Your task to perform on an android device: remove spam from my inbox in the gmail app Image 0: 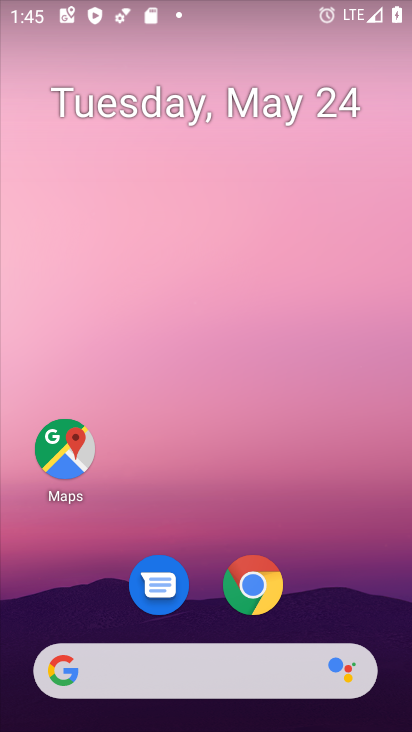
Step 0: drag from (249, 470) to (264, 0)
Your task to perform on an android device: remove spam from my inbox in the gmail app Image 1: 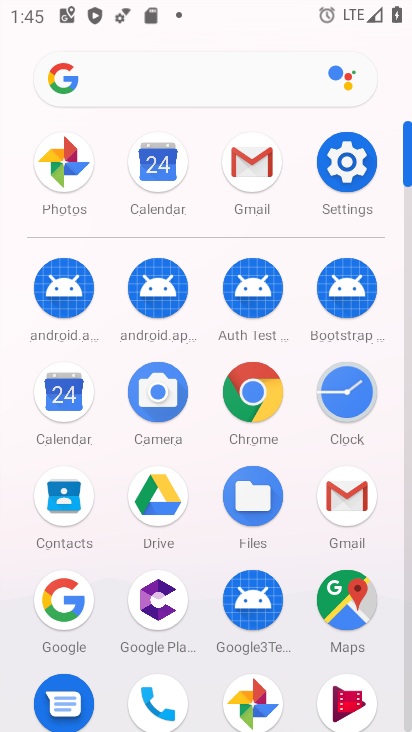
Step 1: click (263, 162)
Your task to perform on an android device: remove spam from my inbox in the gmail app Image 2: 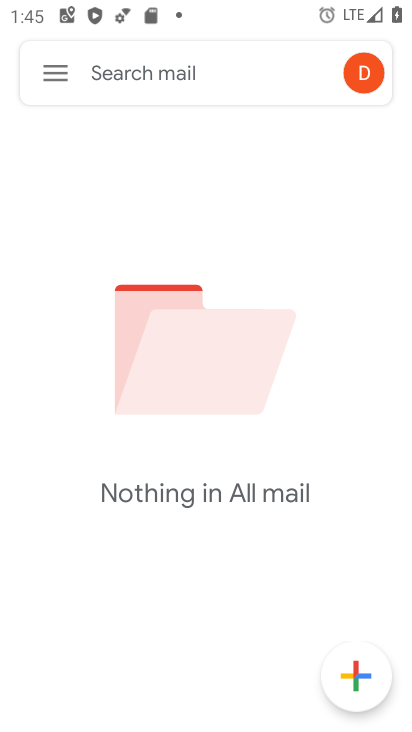
Step 2: click (60, 69)
Your task to perform on an android device: remove spam from my inbox in the gmail app Image 3: 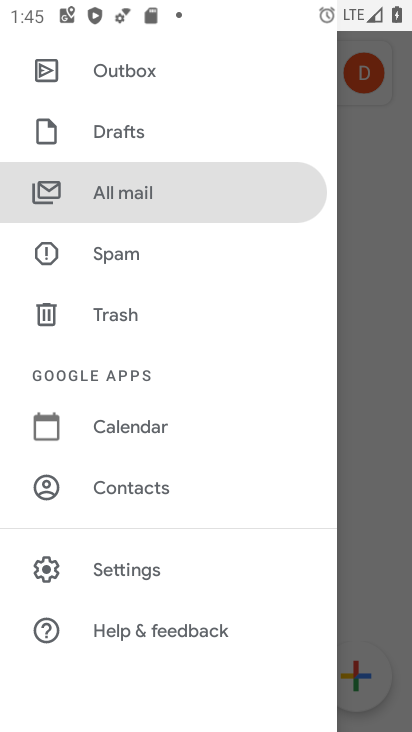
Step 3: click (111, 243)
Your task to perform on an android device: remove spam from my inbox in the gmail app Image 4: 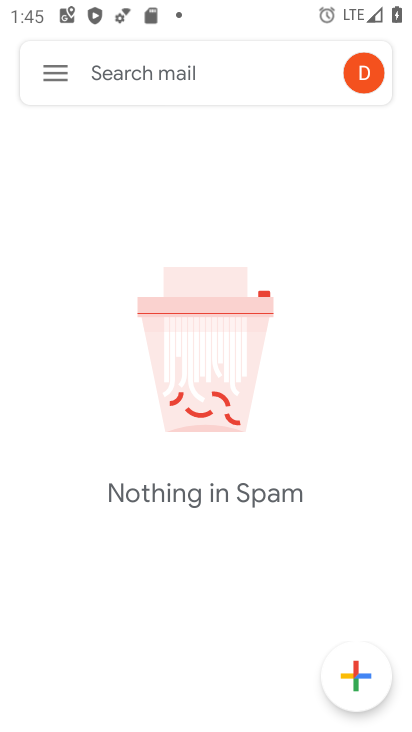
Step 4: task complete